Your task to perform on an android device: empty trash in the gmail app Image 0: 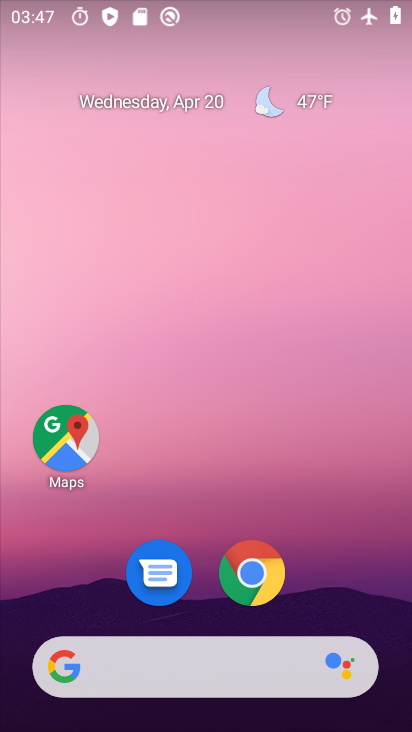
Step 0: drag from (208, 724) to (195, 95)
Your task to perform on an android device: empty trash in the gmail app Image 1: 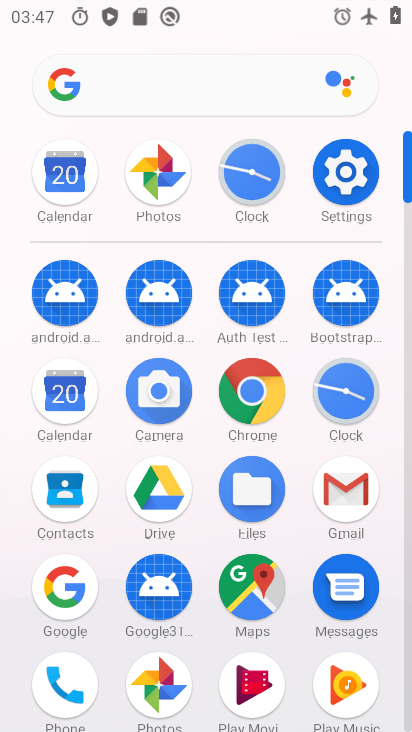
Step 1: click (344, 482)
Your task to perform on an android device: empty trash in the gmail app Image 2: 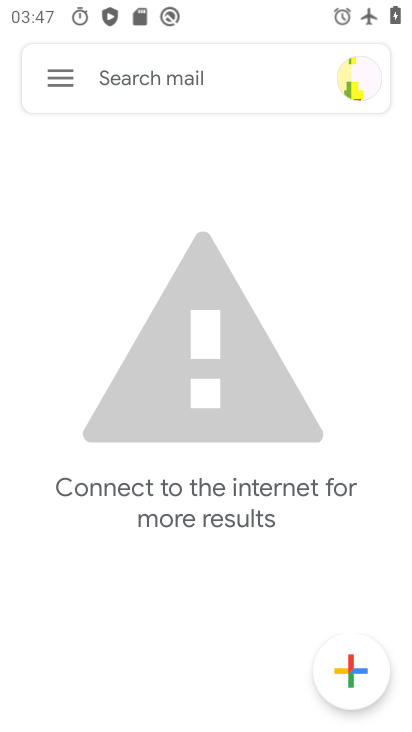
Step 2: click (62, 80)
Your task to perform on an android device: empty trash in the gmail app Image 3: 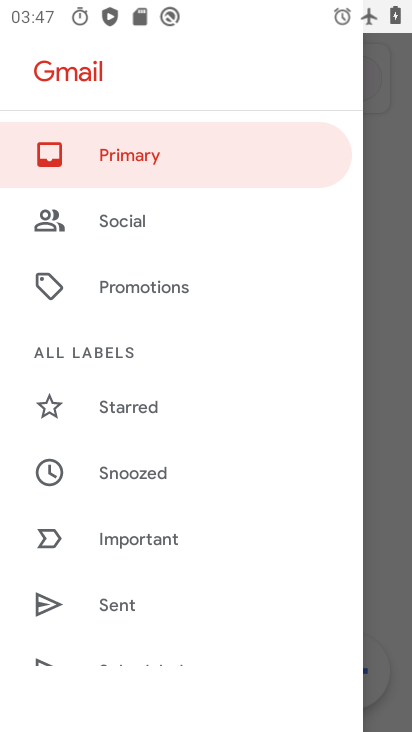
Step 3: drag from (133, 588) to (172, 197)
Your task to perform on an android device: empty trash in the gmail app Image 4: 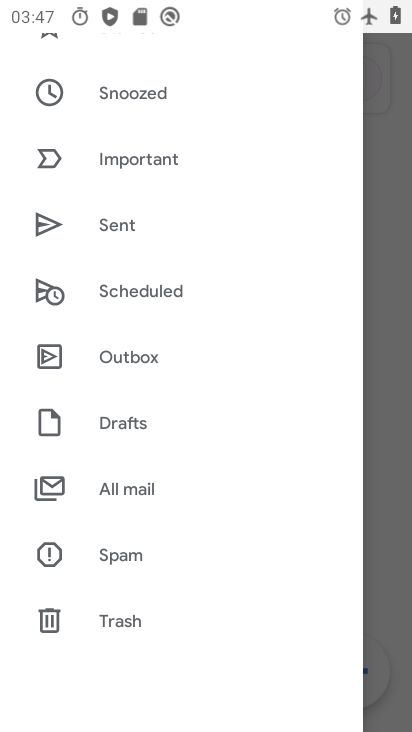
Step 4: click (136, 618)
Your task to perform on an android device: empty trash in the gmail app Image 5: 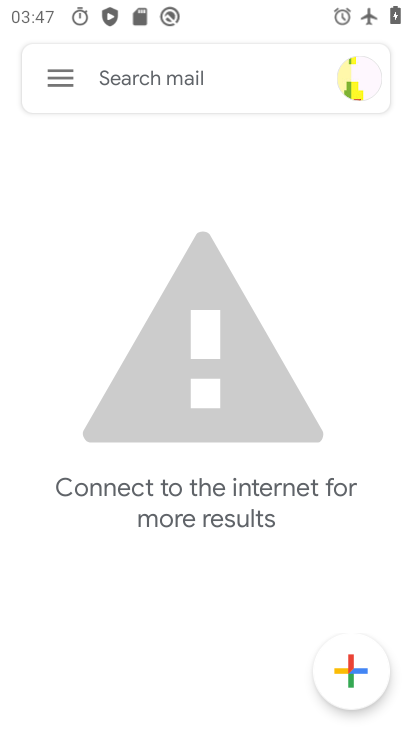
Step 5: task complete